Your task to perform on an android device: Open sound settings Image 0: 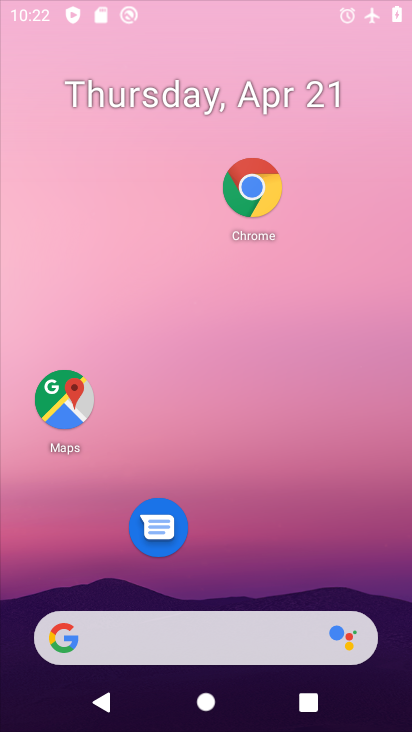
Step 0: drag from (248, 657) to (282, 119)
Your task to perform on an android device: Open sound settings Image 1: 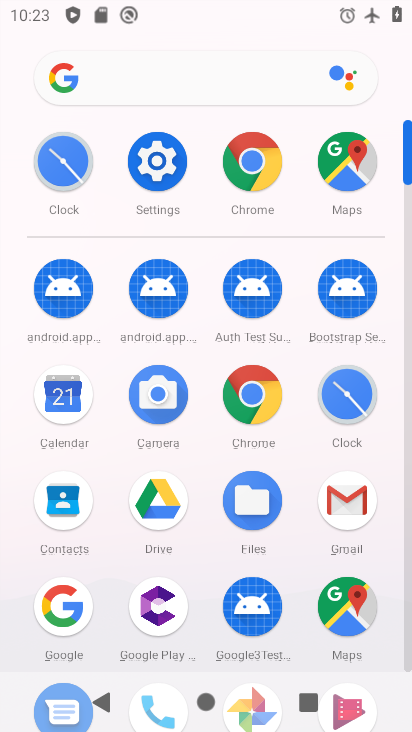
Step 1: click (168, 186)
Your task to perform on an android device: Open sound settings Image 2: 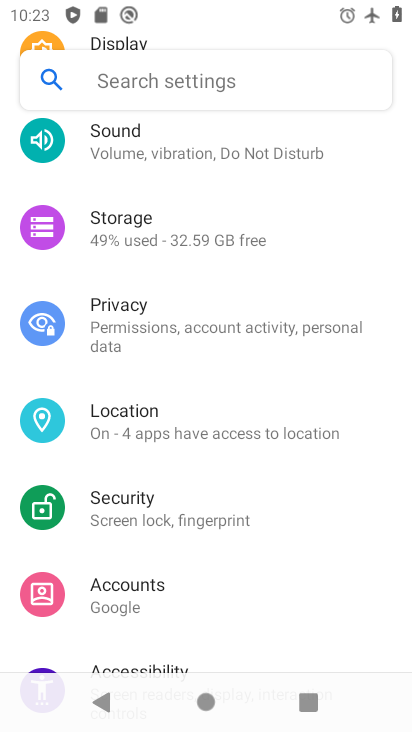
Step 2: drag from (217, 340) to (172, 548)
Your task to perform on an android device: Open sound settings Image 3: 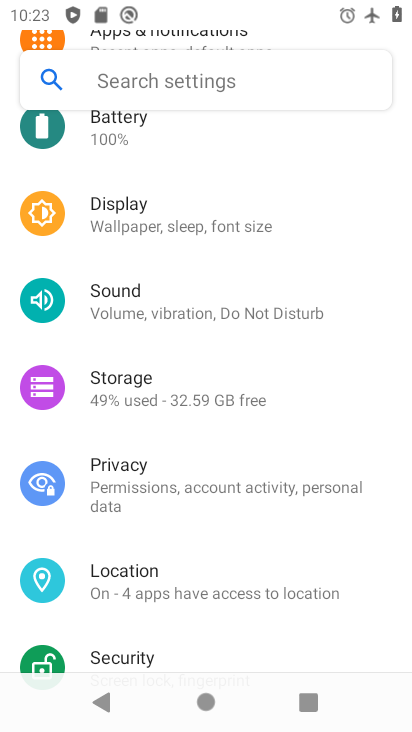
Step 3: click (240, 308)
Your task to perform on an android device: Open sound settings Image 4: 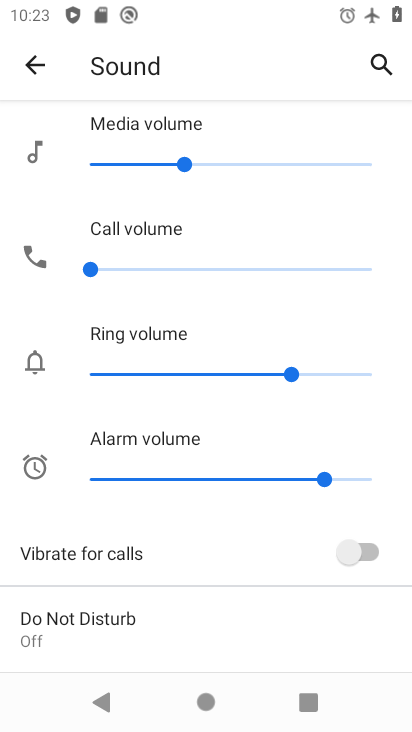
Step 4: task complete